Your task to perform on an android device: Go to privacy settings Image 0: 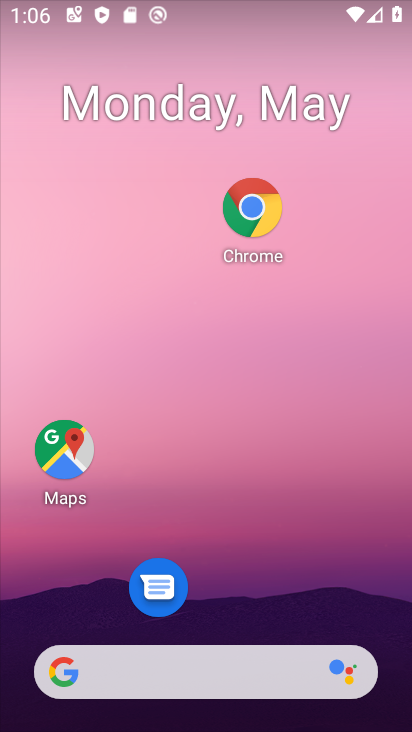
Step 0: drag from (270, 652) to (200, 67)
Your task to perform on an android device: Go to privacy settings Image 1: 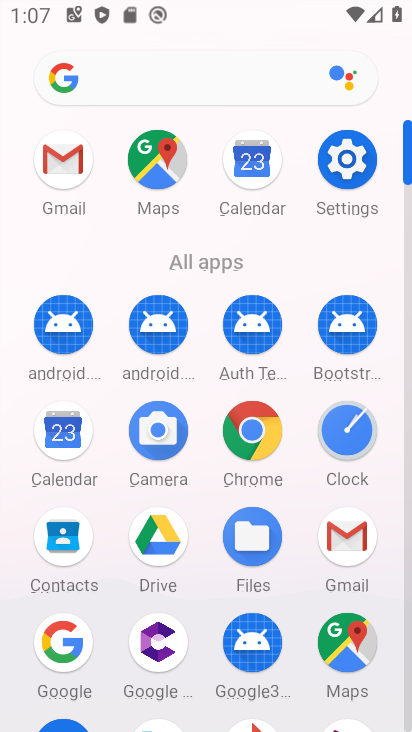
Step 1: click (339, 140)
Your task to perform on an android device: Go to privacy settings Image 2: 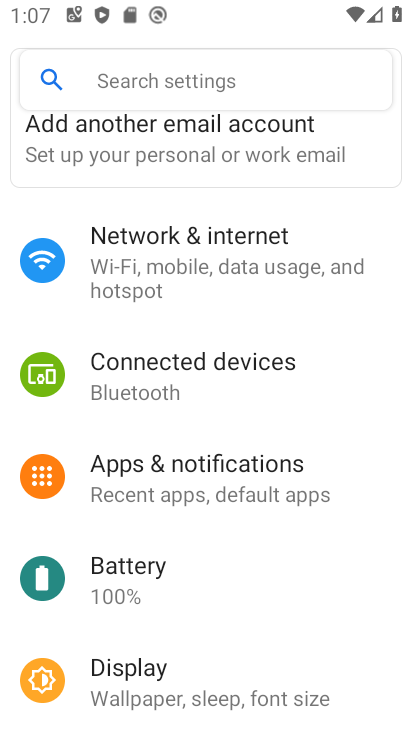
Step 2: drag from (276, 520) to (236, 208)
Your task to perform on an android device: Go to privacy settings Image 3: 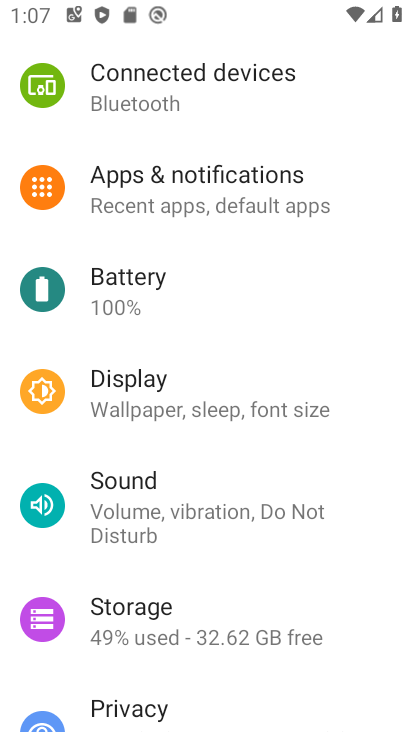
Step 3: click (126, 705)
Your task to perform on an android device: Go to privacy settings Image 4: 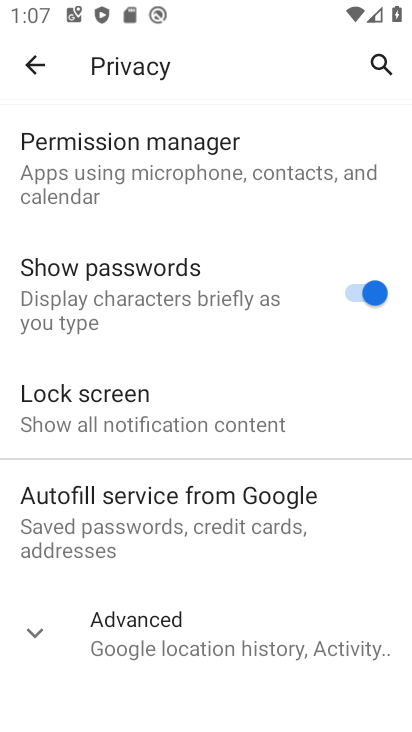
Step 4: task complete